Your task to perform on an android device: Open calendar and show me the first week of next month Image 0: 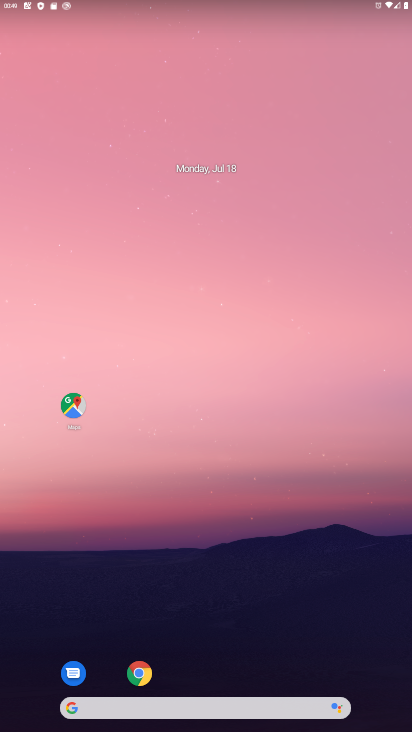
Step 0: click (215, 667)
Your task to perform on an android device: Open calendar and show me the first week of next month Image 1: 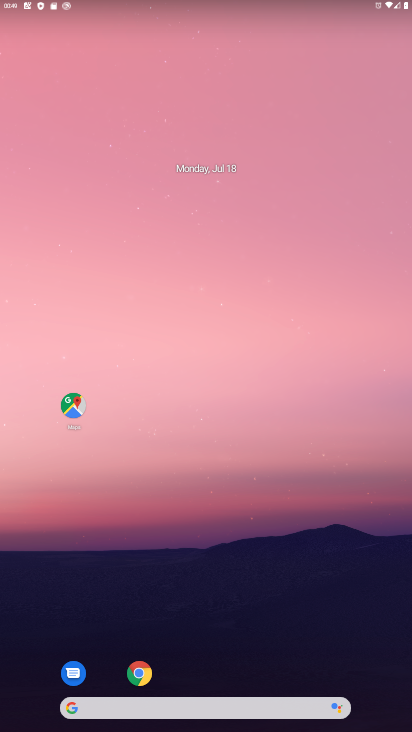
Step 1: drag from (215, 667) to (204, 171)
Your task to perform on an android device: Open calendar and show me the first week of next month Image 2: 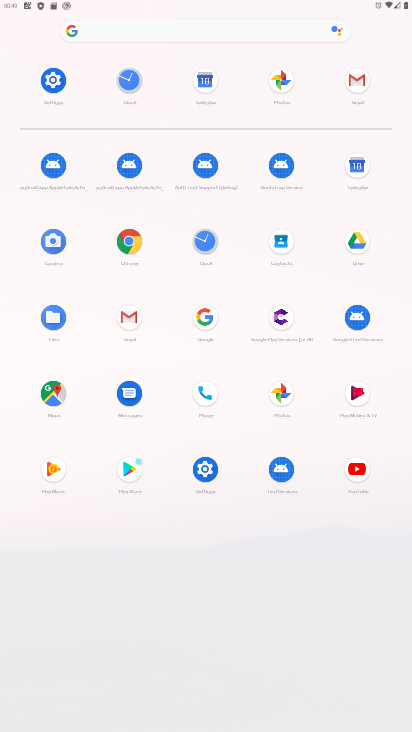
Step 2: click (347, 164)
Your task to perform on an android device: Open calendar and show me the first week of next month Image 3: 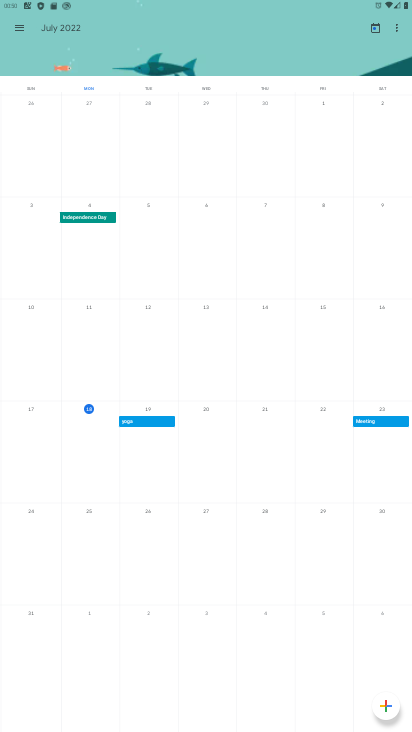
Step 3: task complete